Your task to perform on an android device: check the backup settings in the google photos Image 0: 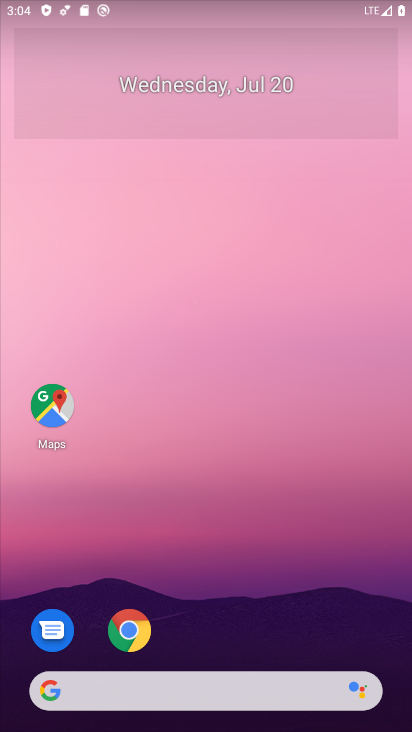
Step 0: press home button
Your task to perform on an android device: check the backup settings in the google photos Image 1: 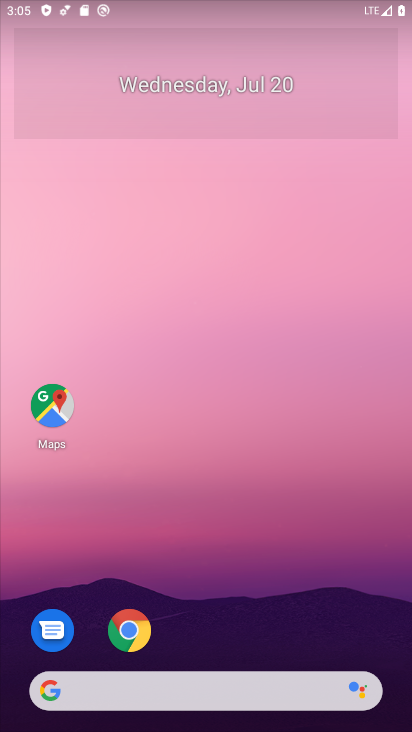
Step 1: drag from (252, 655) to (93, 19)
Your task to perform on an android device: check the backup settings in the google photos Image 2: 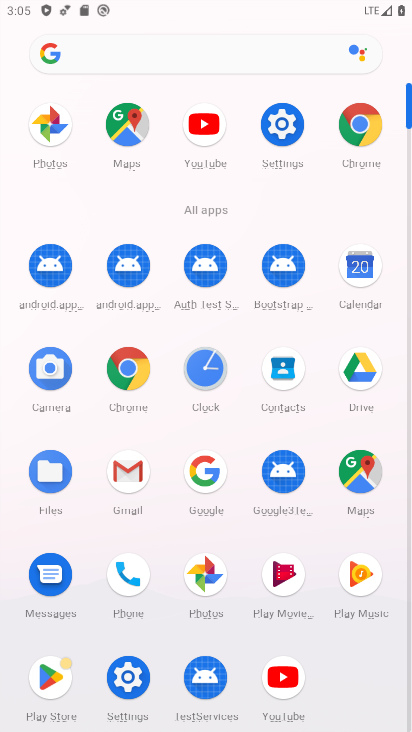
Step 2: click (50, 134)
Your task to perform on an android device: check the backup settings in the google photos Image 3: 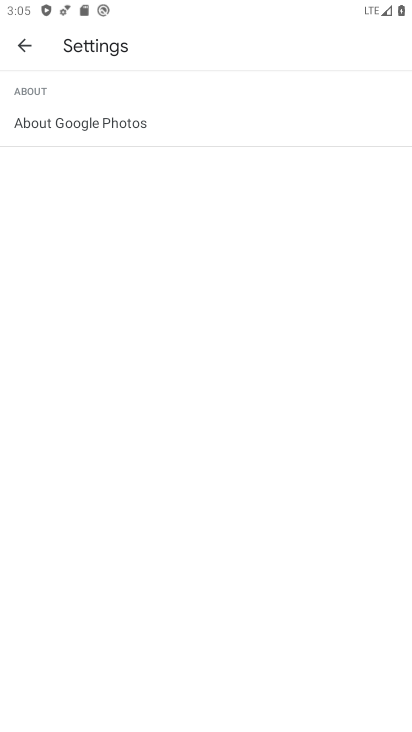
Step 3: click (30, 43)
Your task to perform on an android device: check the backup settings in the google photos Image 4: 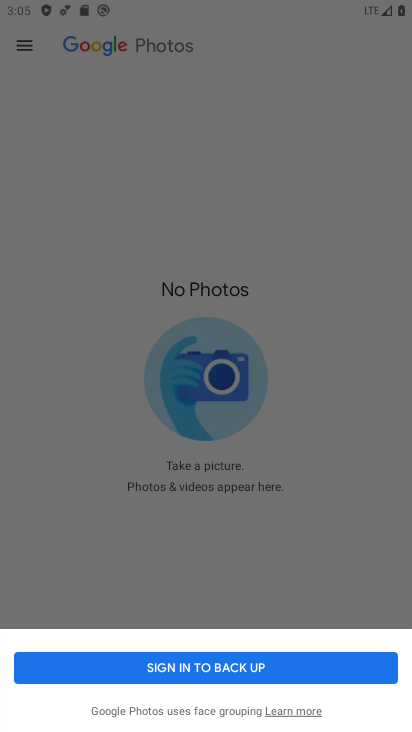
Step 4: click (30, 43)
Your task to perform on an android device: check the backup settings in the google photos Image 5: 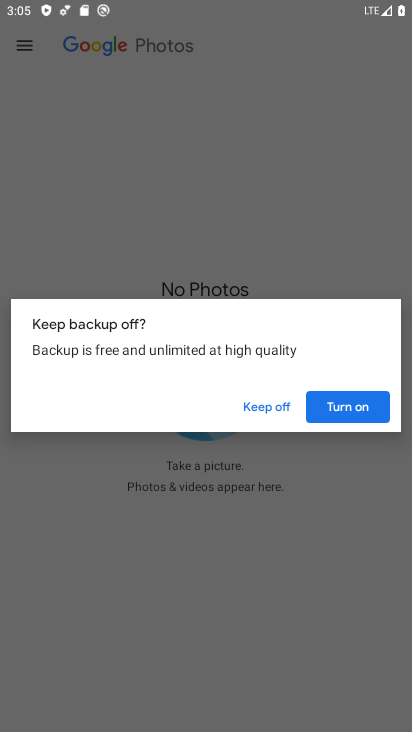
Step 5: click (334, 417)
Your task to perform on an android device: check the backup settings in the google photos Image 6: 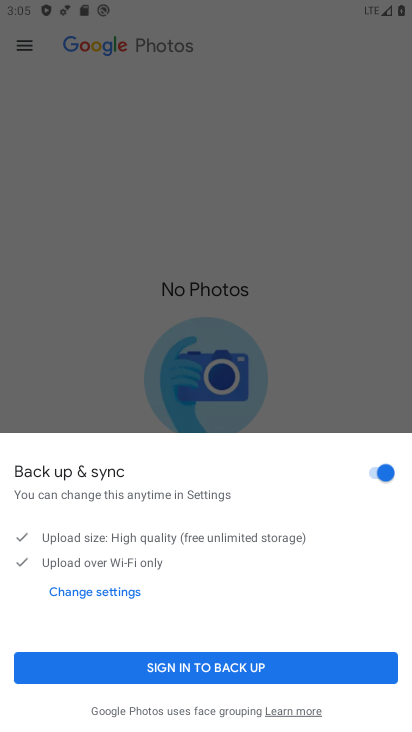
Step 6: click (266, 667)
Your task to perform on an android device: check the backup settings in the google photos Image 7: 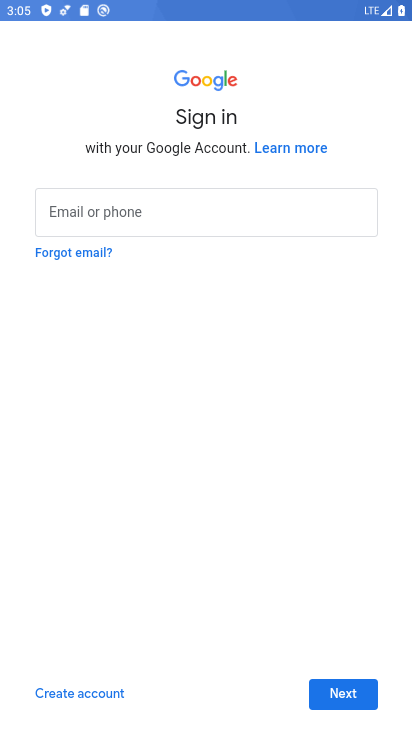
Step 7: click (321, 696)
Your task to perform on an android device: check the backup settings in the google photos Image 8: 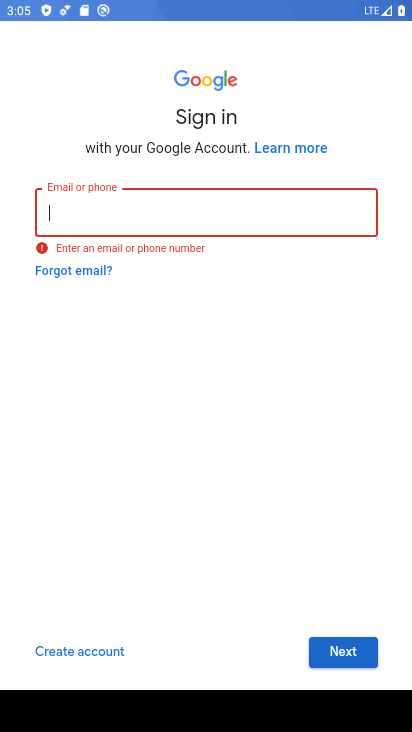
Step 8: task complete